Your task to perform on an android device: empty trash in the gmail app Image 0: 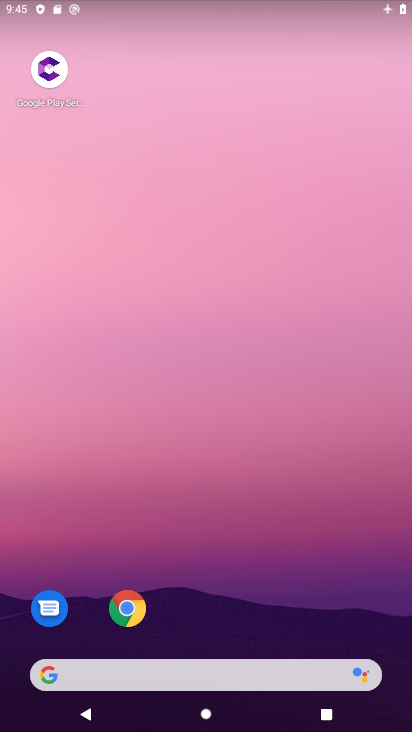
Step 0: drag from (274, 458) to (243, 219)
Your task to perform on an android device: empty trash in the gmail app Image 1: 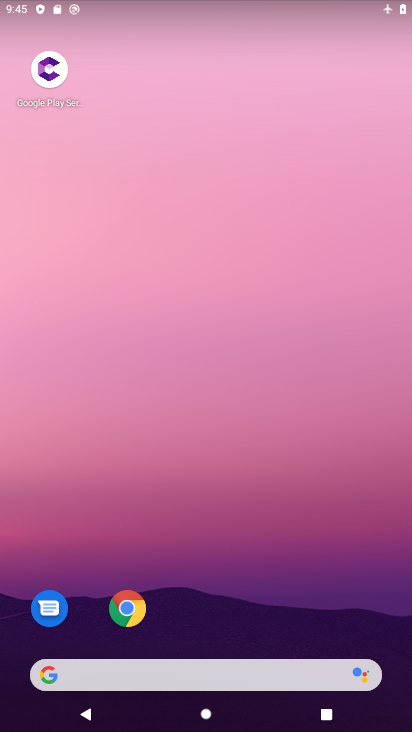
Step 1: drag from (186, 617) to (191, 199)
Your task to perform on an android device: empty trash in the gmail app Image 2: 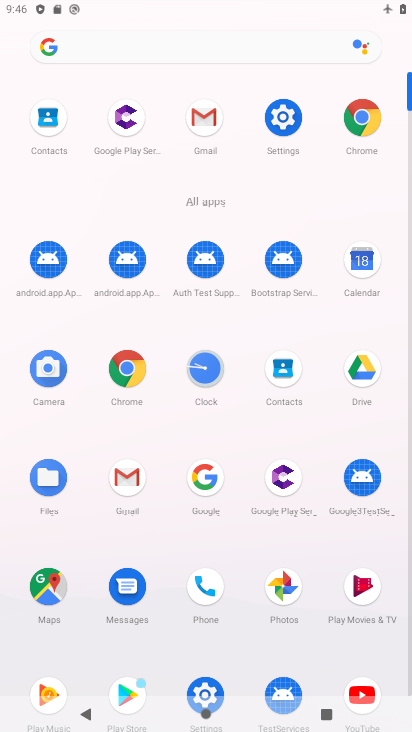
Step 2: click (129, 491)
Your task to perform on an android device: empty trash in the gmail app Image 3: 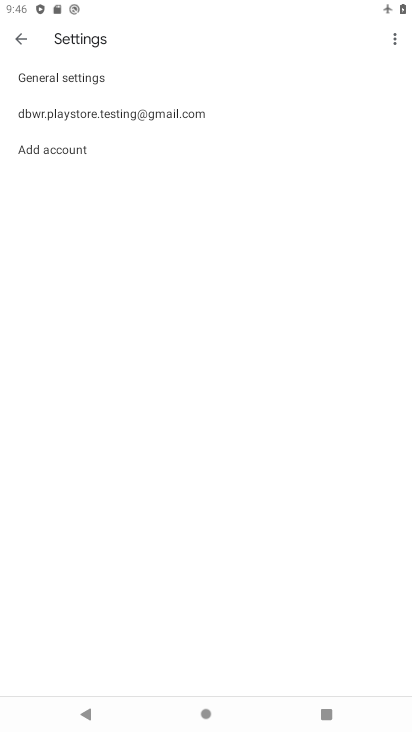
Step 3: click (190, 106)
Your task to perform on an android device: empty trash in the gmail app Image 4: 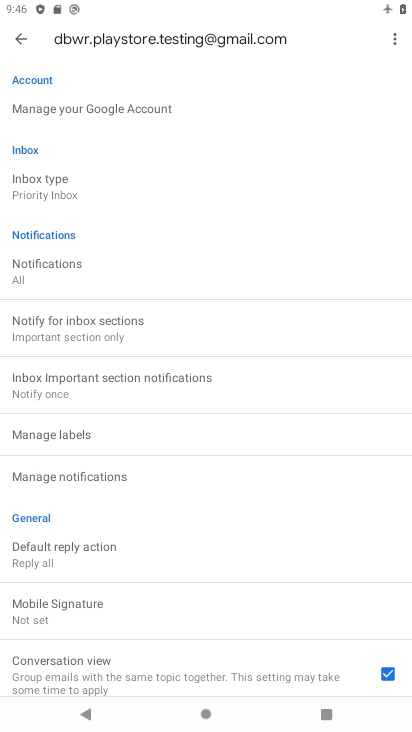
Step 4: press back button
Your task to perform on an android device: empty trash in the gmail app Image 5: 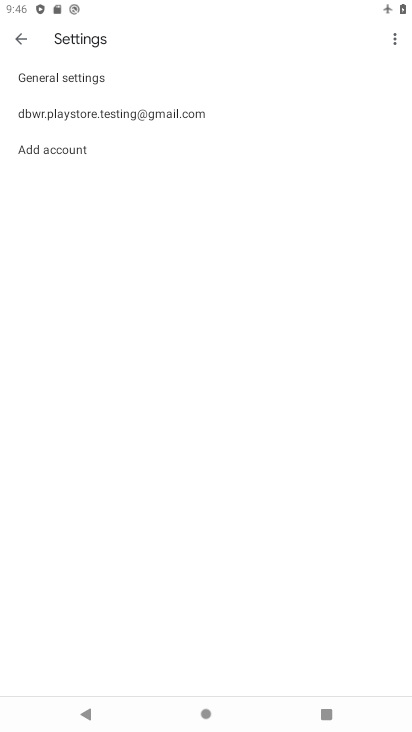
Step 5: press back button
Your task to perform on an android device: empty trash in the gmail app Image 6: 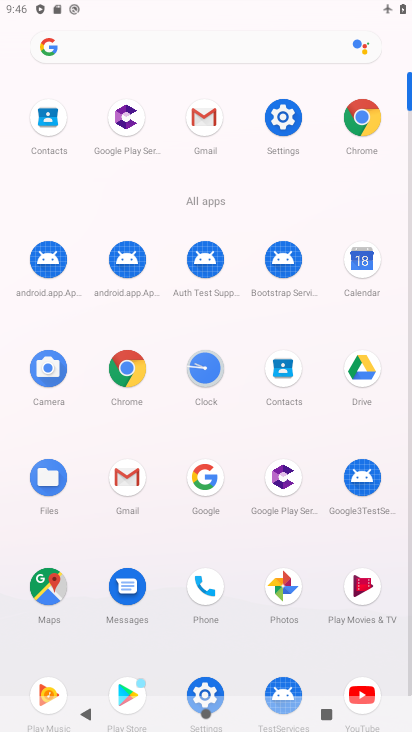
Step 6: click (197, 117)
Your task to perform on an android device: empty trash in the gmail app Image 7: 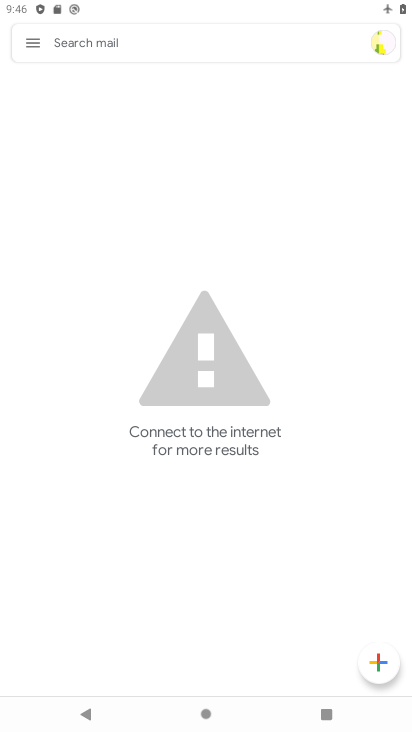
Step 7: task complete